Your task to perform on an android device: change the clock display to show seconds Image 0: 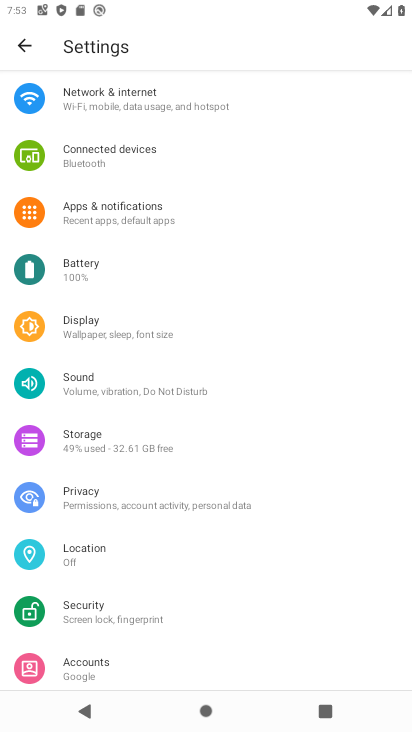
Step 0: press home button
Your task to perform on an android device: change the clock display to show seconds Image 1: 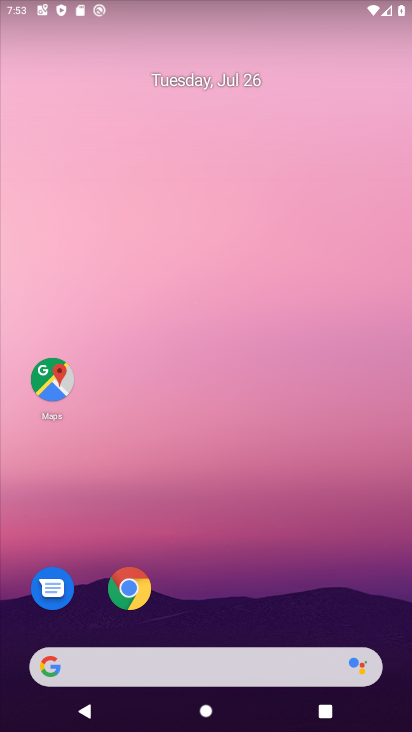
Step 1: drag from (262, 568) to (325, 96)
Your task to perform on an android device: change the clock display to show seconds Image 2: 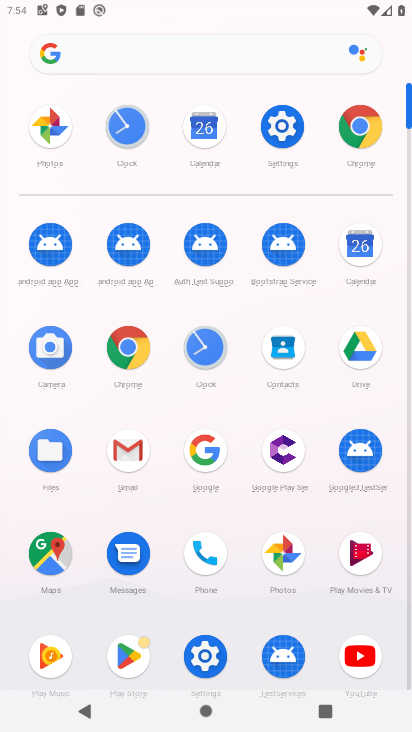
Step 2: click (207, 342)
Your task to perform on an android device: change the clock display to show seconds Image 3: 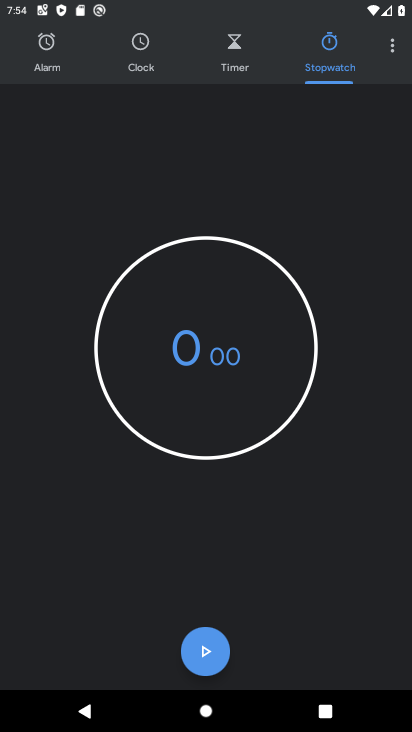
Step 3: click (391, 50)
Your task to perform on an android device: change the clock display to show seconds Image 4: 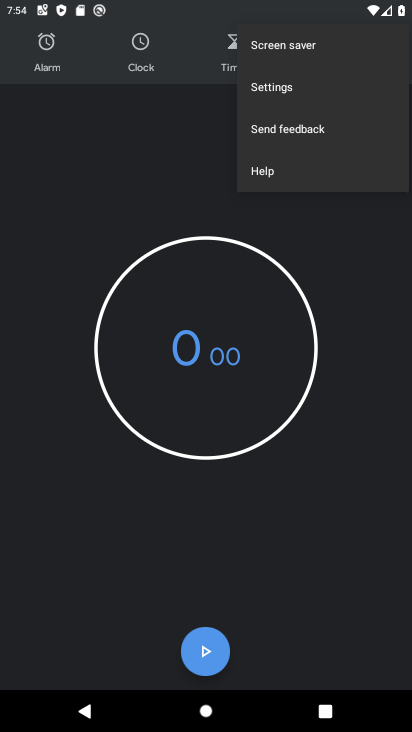
Step 4: click (285, 94)
Your task to perform on an android device: change the clock display to show seconds Image 5: 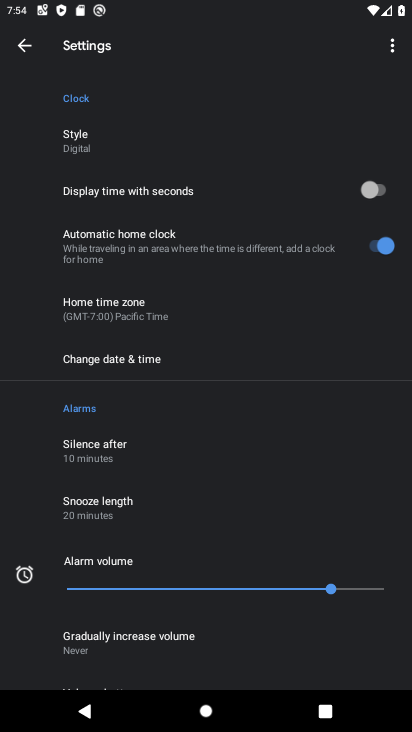
Step 5: click (376, 188)
Your task to perform on an android device: change the clock display to show seconds Image 6: 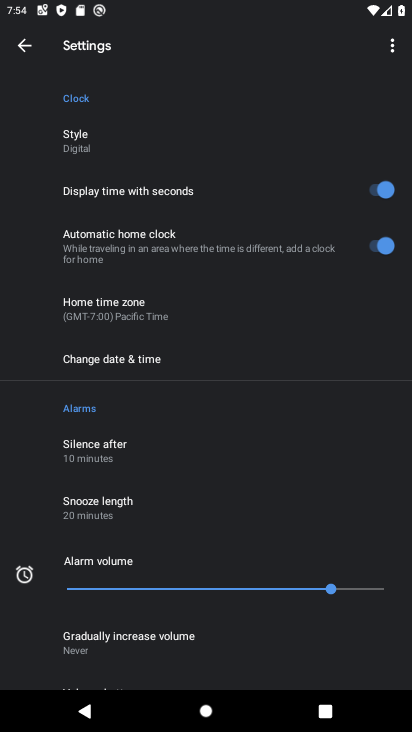
Step 6: task complete